Your task to perform on an android device: Open Yahoo.com Image 0: 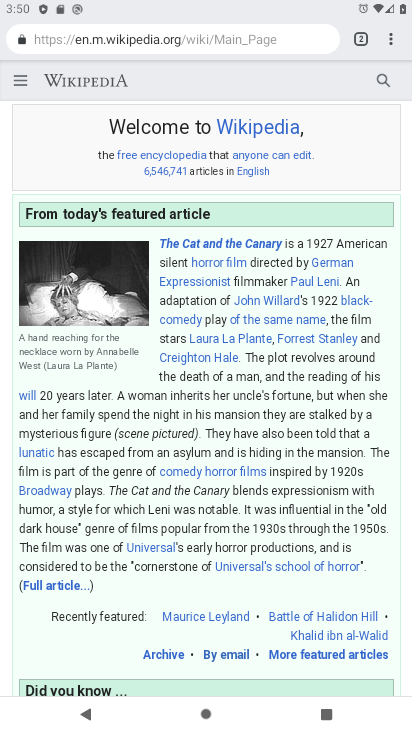
Step 0: drag from (394, 36) to (301, 71)
Your task to perform on an android device: Open Yahoo.com Image 1: 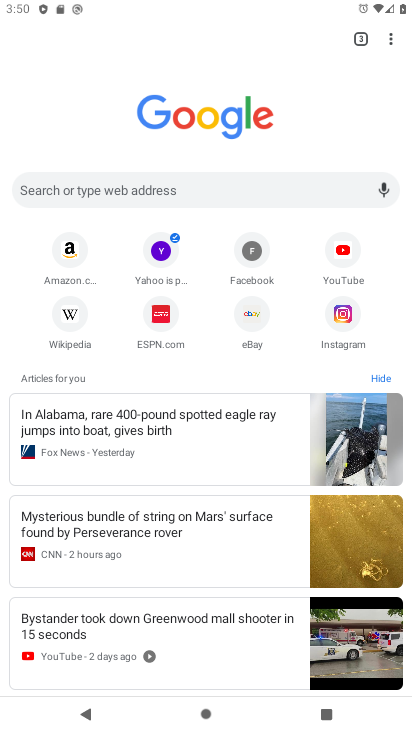
Step 1: click (80, 318)
Your task to perform on an android device: Open Yahoo.com Image 2: 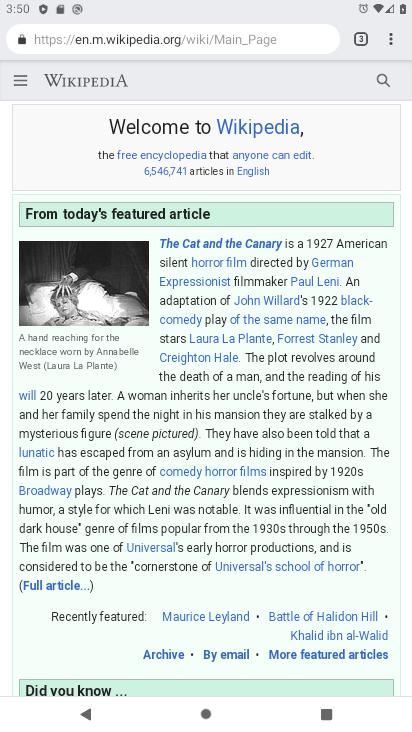
Step 2: task complete